Your task to perform on an android device: choose inbox layout in the gmail app Image 0: 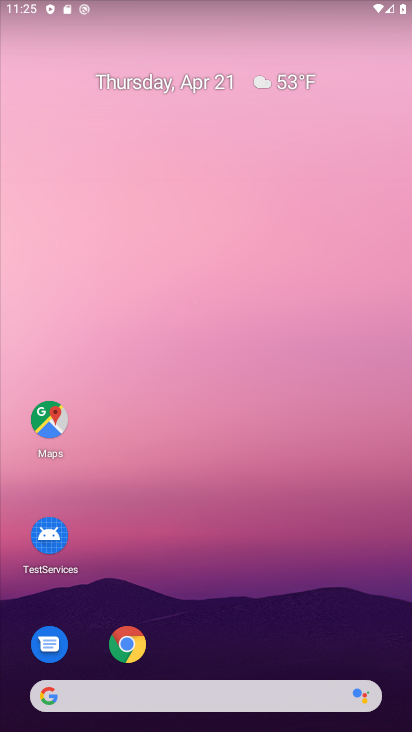
Step 0: drag from (235, 589) to (193, 107)
Your task to perform on an android device: choose inbox layout in the gmail app Image 1: 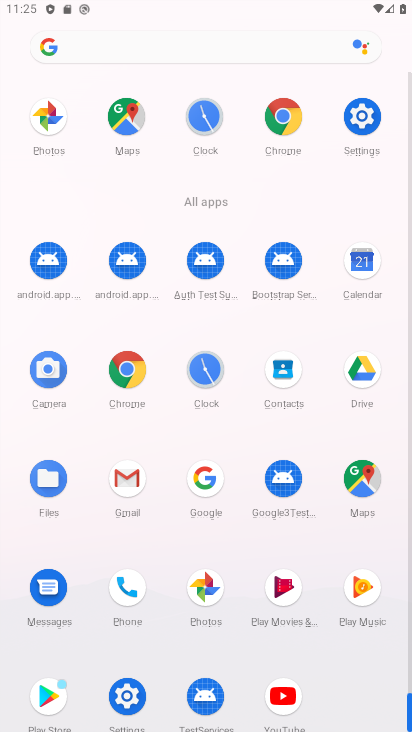
Step 1: click (133, 481)
Your task to perform on an android device: choose inbox layout in the gmail app Image 2: 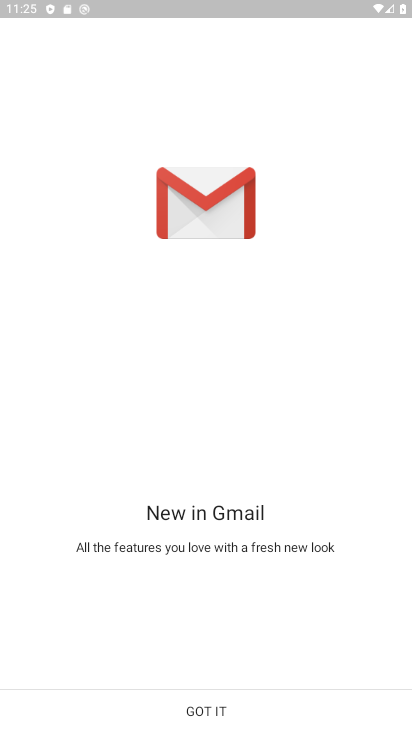
Step 2: click (214, 702)
Your task to perform on an android device: choose inbox layout in the gmail app Image 3: 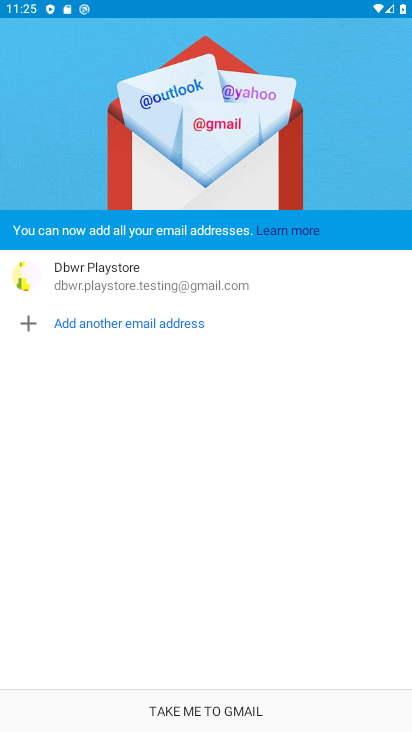
Step 3: click (216, 697)
Your task to perform on an android device: choose inbox layout in the gmail app Image 4: 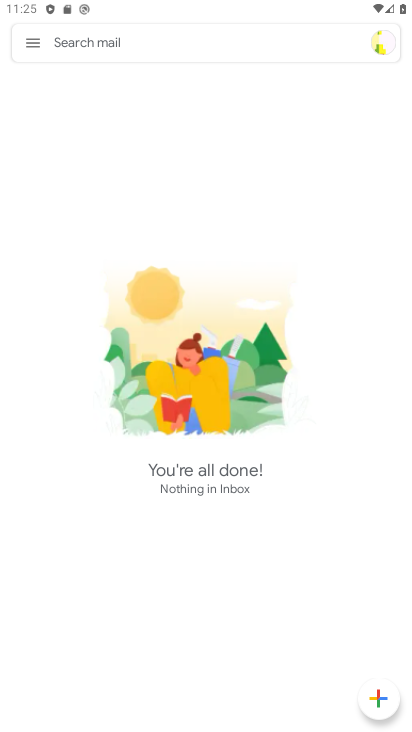
Step 4: click (33, 38)
Your task to perform on an android device: choose inbox layout in the gmail app Image 5: 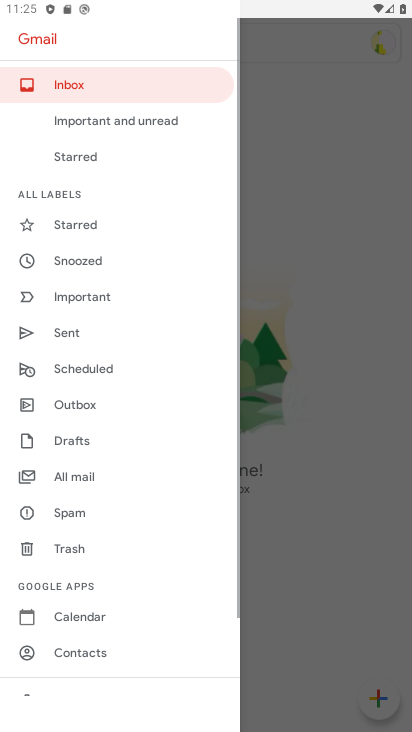
Step 5: drag from (118, 400) to (148, 94)
Your task to perform on an android device: choose inbox layout in the gmail app Image 6: 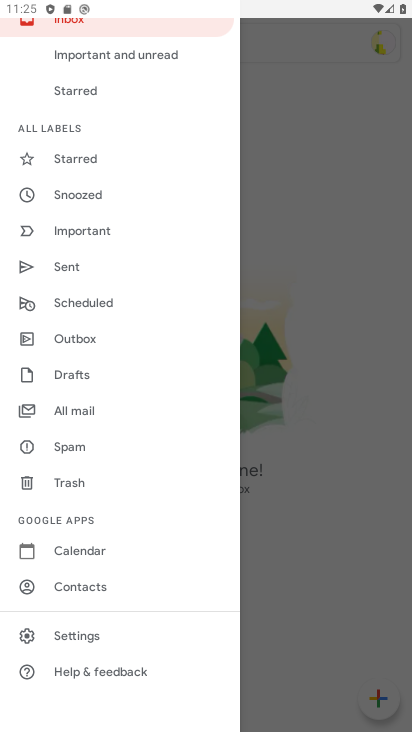
Step 6: click (80, 635)
Your task to perform on an android device: choose inbox layout in the gmail app Image 7: 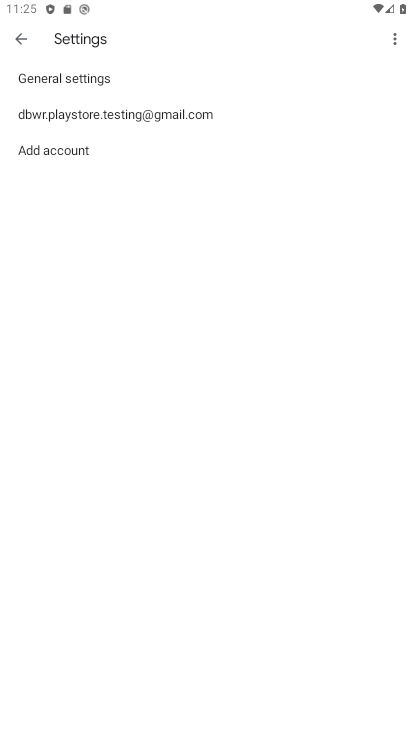
Step 7: click (149, 109)
Your task to perform on an android device: choose inbox layout in the gmail app Image 8: 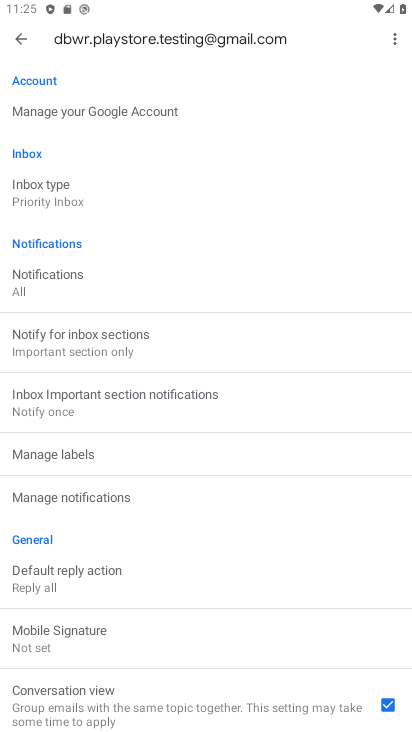
Step 8: click (53, 204)
Your task to perform on an android device: choose inbox layout in the gmail app Image 9: 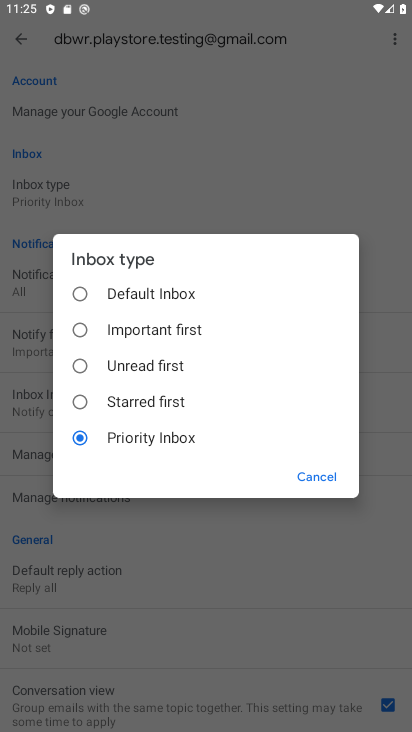
Step 9: task complete